Your task to perform on an android device: Open calendar and show me the third week of next month Image 0: 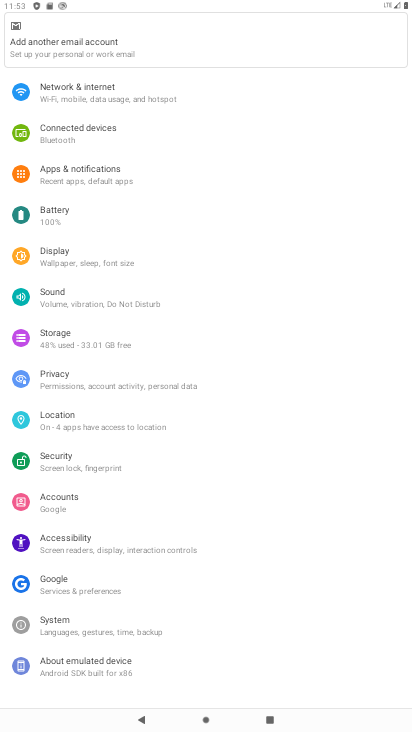
Step 0: press home button
Your task to perform on an android device: Open calendar and show me the third week of next month Image 1: 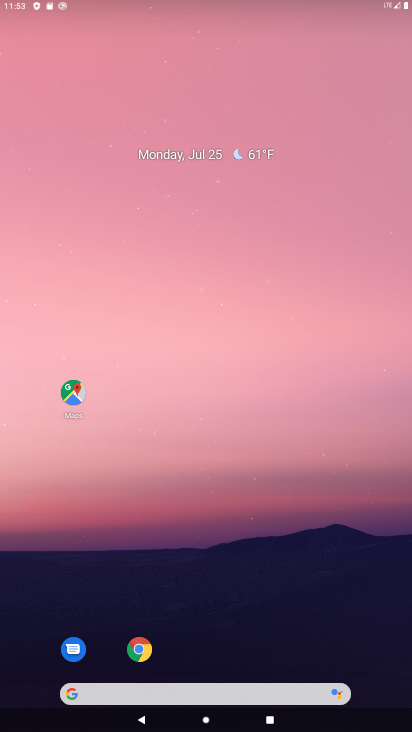
Step 1: drag from (211, 658) to (213, 111)
Your task to perform on an android device: Open calendar and show me the third week of next month Image 2: 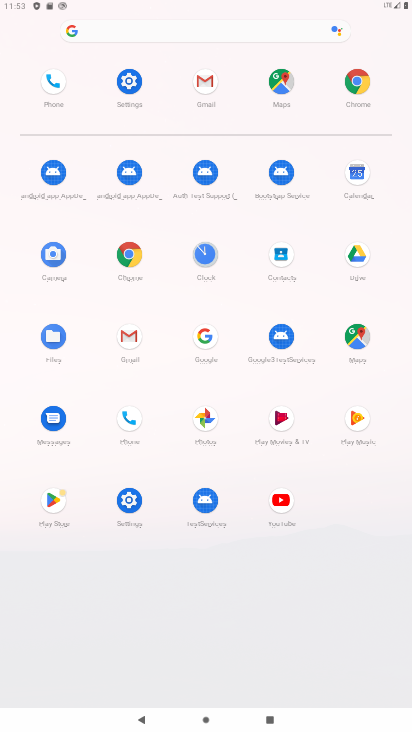
Step 2: click (356, 180)
Your task to perform on an android device: Open calendar and show me the third week of next month Image 3: 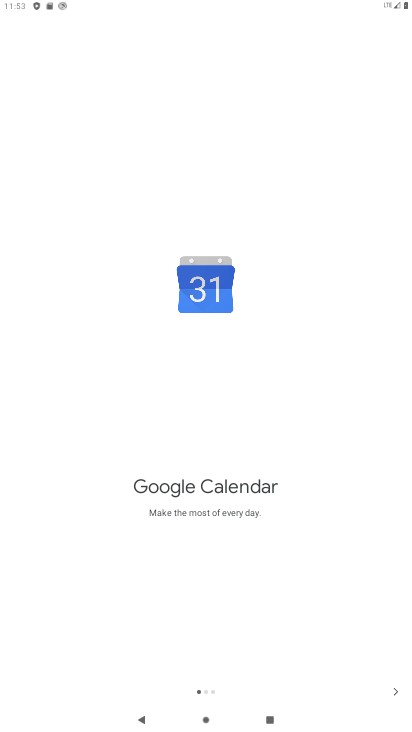
Step 3: click (387, 686)
Your task to perform on an android device: Open calendar and show me the third week of next month Image 4: 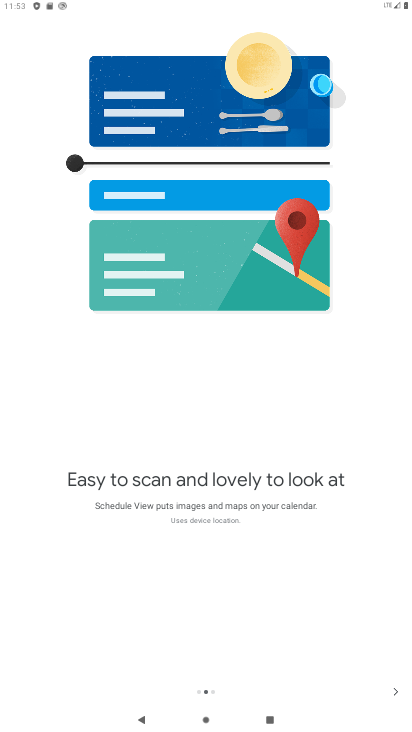
Step 4: click (382, 687)
Your task to perform on an android device: Open calendar and show me the third week of next month Image 5: 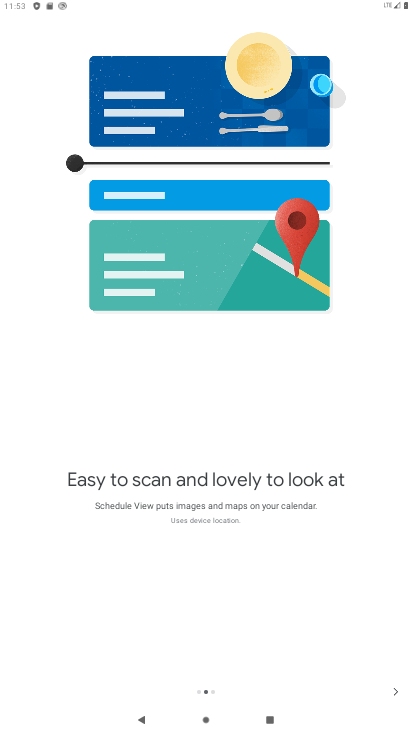
Step 5: click (385, 691)
Your task to perform on an android device: Open calendar and show me the third week of next month Image 6: 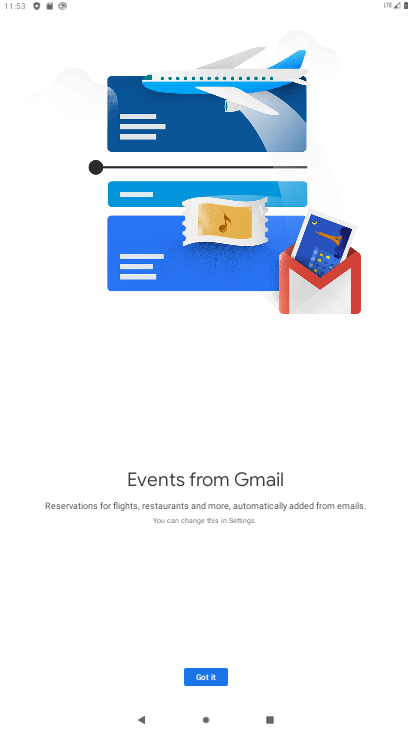
Step 6: click (205, 684)
Your task to perform on an android device: Open calendar and show me the third week of next month Image 7: 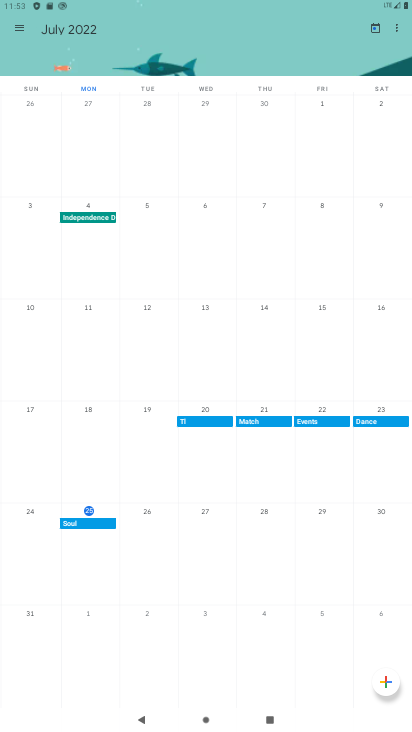
Step 7: task complete